Your task to perform on an android device: Open settings Image 0: 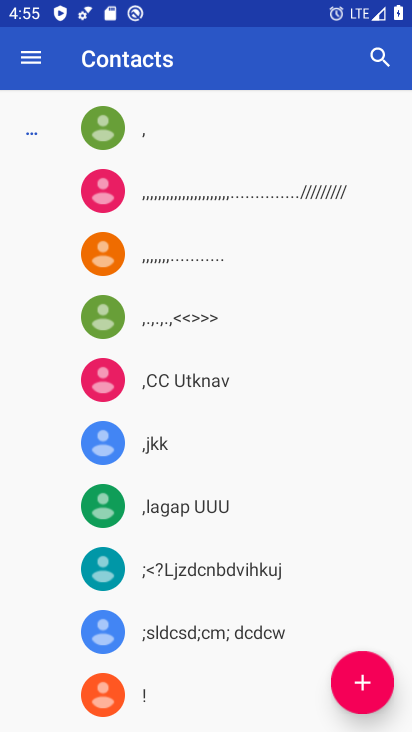
Step 0: press home button
Your task to perform on an android device: Open settings Image 1: 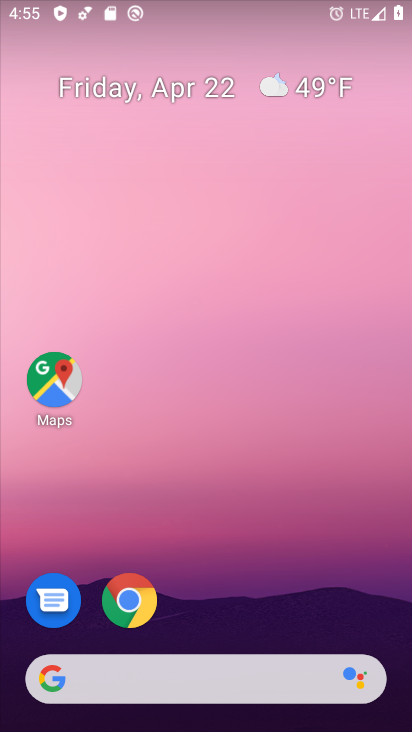
Step 1: drag from (258, 609) to (268, 36)
Your task to perform on an android device: Open settings Image 2: 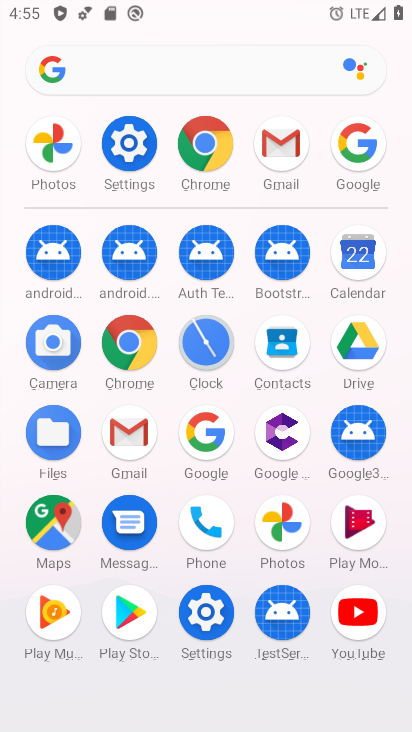
Step 2: click (129, 145)
Your task to perform on an android device: Open settings Image 3: 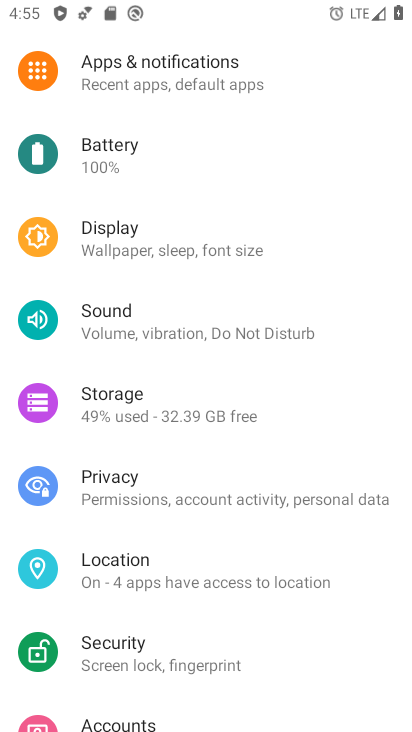
Step 3: task complete